Your task to perform on an android device: change the clock display to analog Image 0: 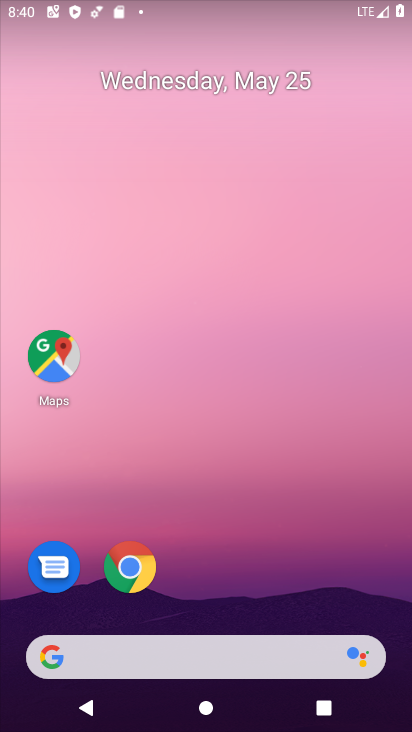
Step 0: drag from (266, 491) to (245, 103)
Your task to perform on an android device: change the clock display to analog Image 1: 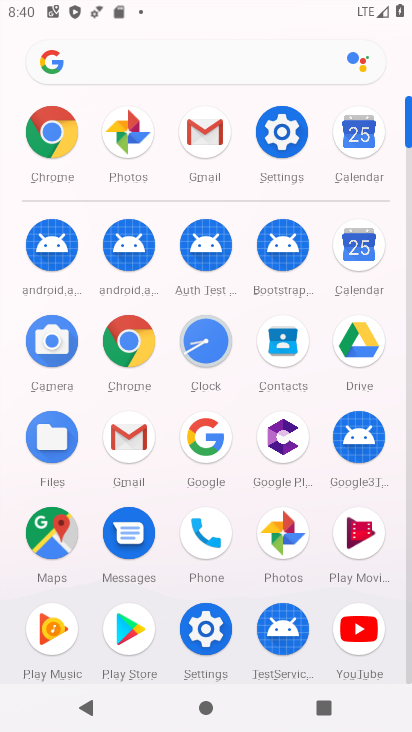
Step 1: click (213, 344)
Your task to perform on an android device: change the clock display to analog Image 2: 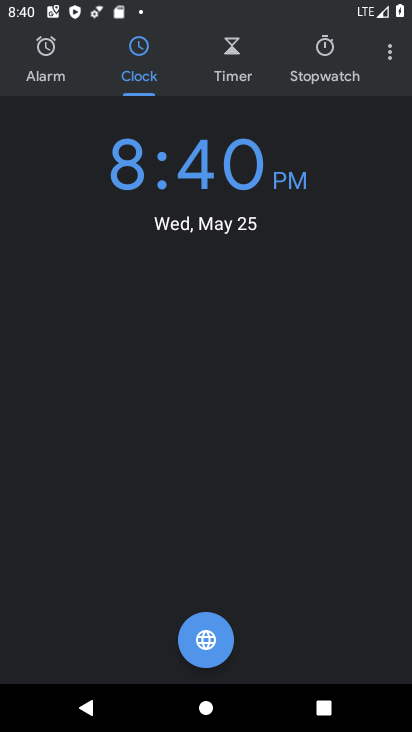
Step 2: click (388, 46)
Your task to perform on an android device: change the clock display to analog Image 3: 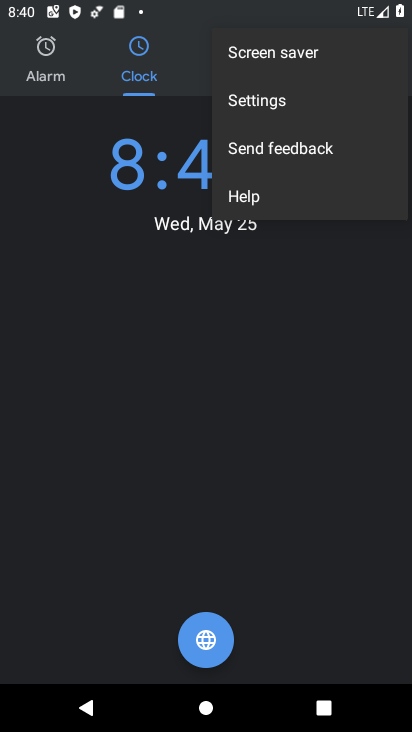
Step 3: click (316, 112)
Your task to perform on an android device: change the clock display to analog Image 4: 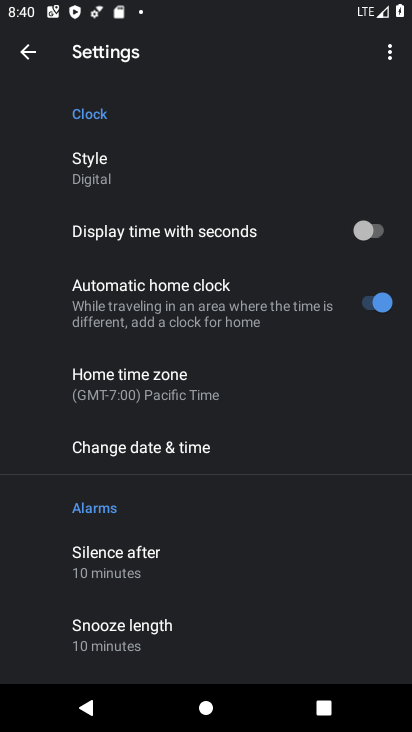
Step 4: click (147, 181)
Your task to perform on an android device: change the clock display to analog Image 5: 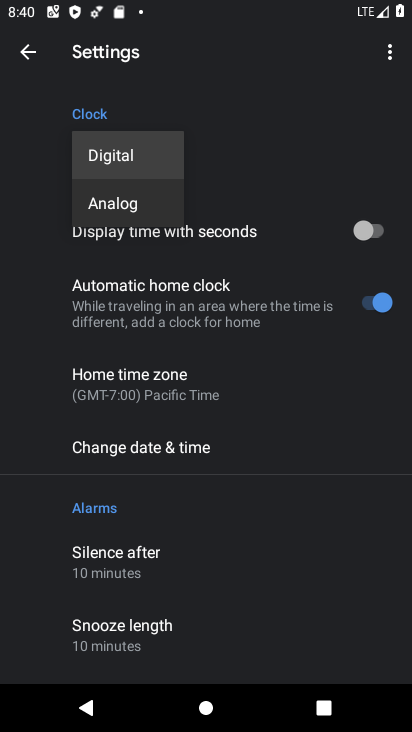
Step 5: click (143, 203)
Your task to perform on an android device: change the clock display to analog Image 6: 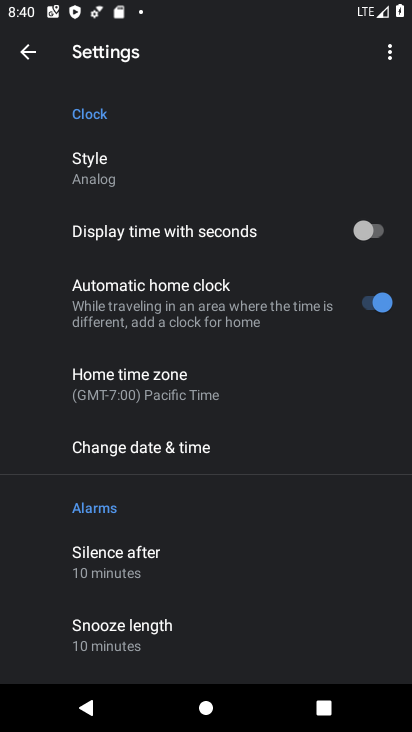
Step 6: click (29, 52)
Your task to perform on an android device: change the clock display to analog Image 7: 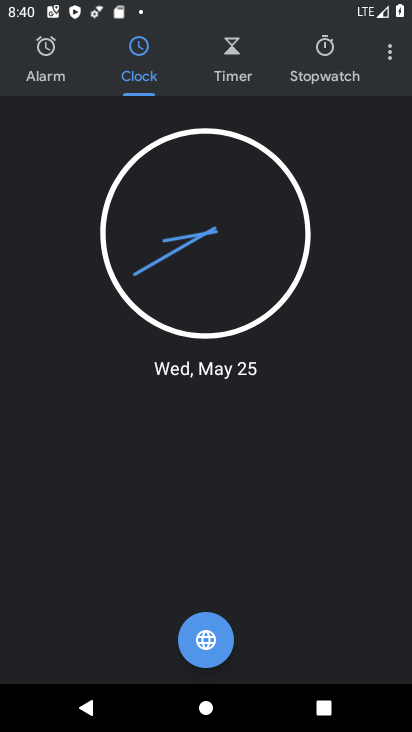
Step 7: task complete